Your task to perform on an android device: Empty the shopping cart on costco. Image 0: 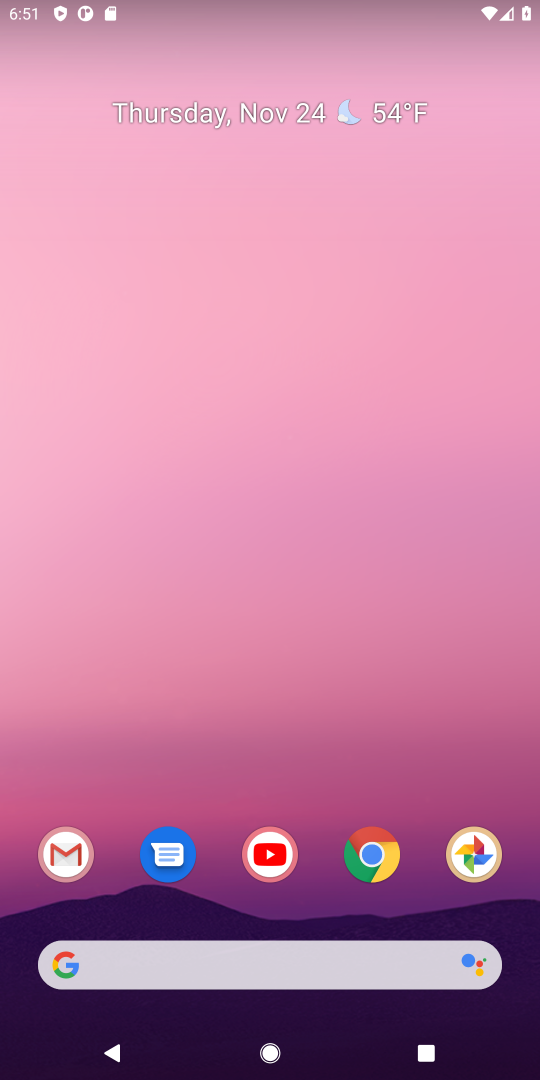
Step 0: click (365, 852)
Your task to perform on an android device: Empty the shopping cart on costco. Image 1: 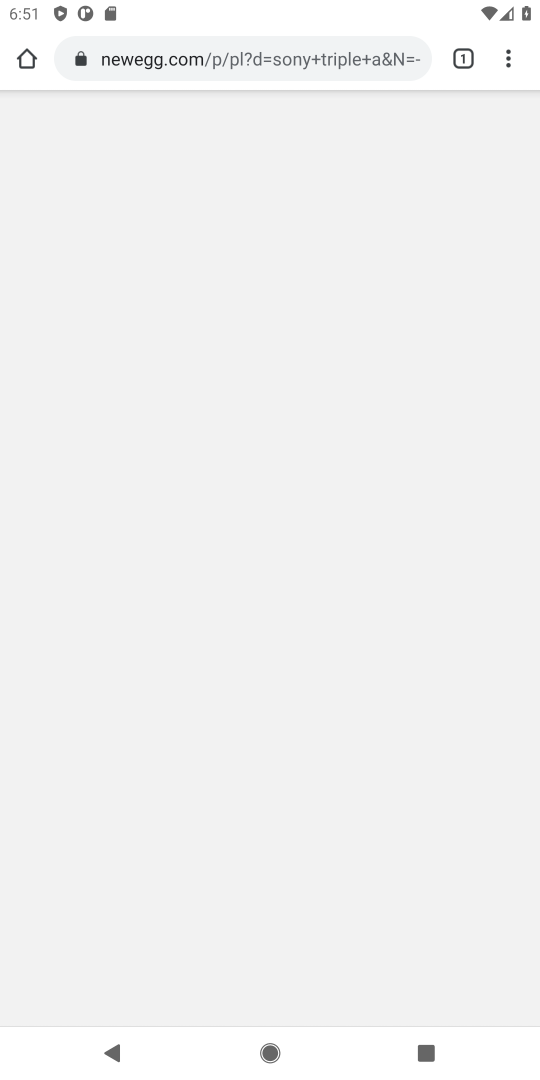
Step 1: click (191, 55)
Your task to perform on an android device: Empty the shopping cart on costco. Image 2: 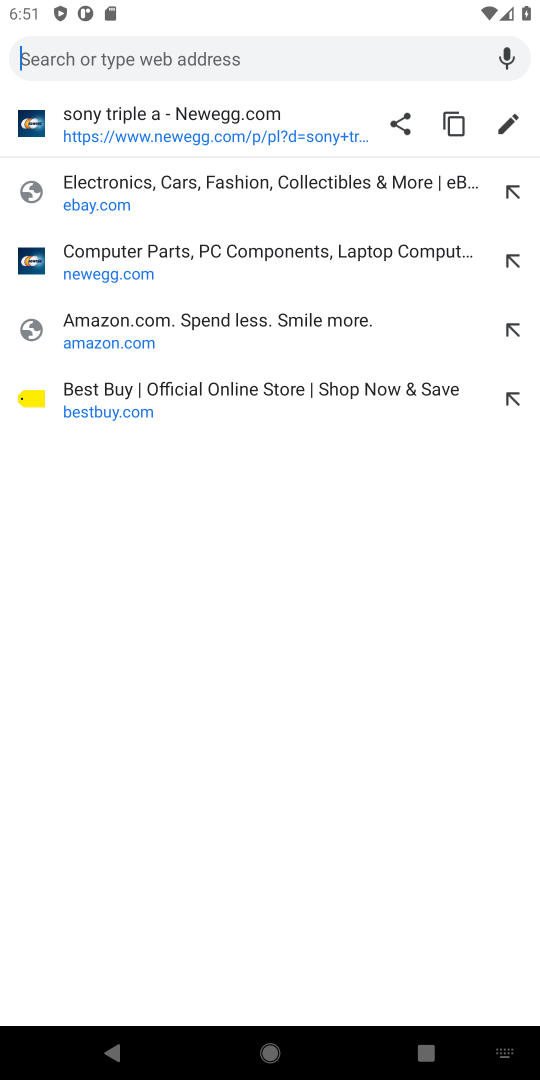
Step 2: type "costco.com"
Your task to perform on an android device: Empty the shopping cart on costco. Image 3: 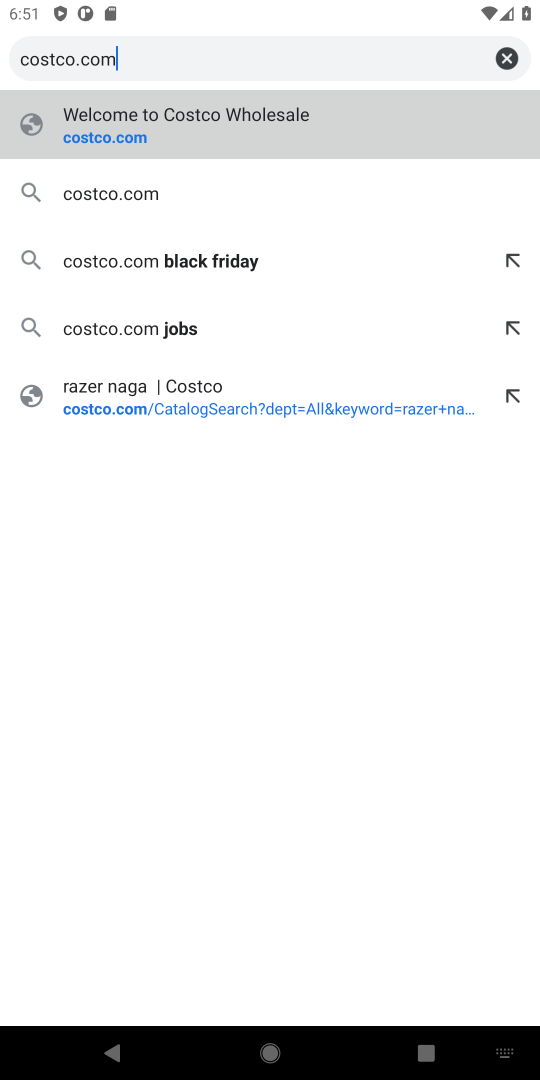
Step 3: click (108, 143)
Your task to perform on an android device: Empty the shopping cart on costco. Image 4: 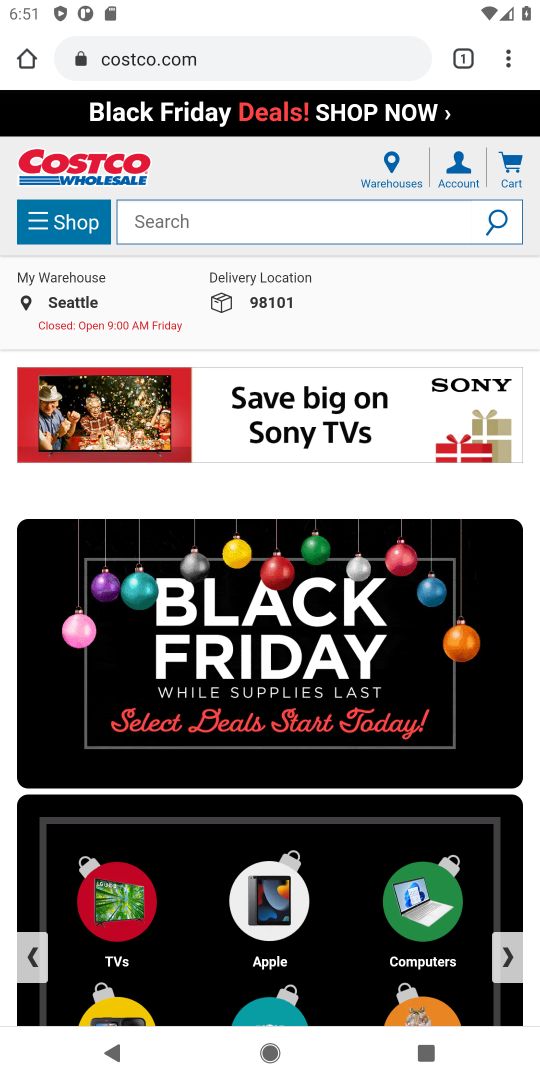
Step 4: click (516, 175)
Your task to perform on an android device: Empty the shopping cart on costco. Image 5: 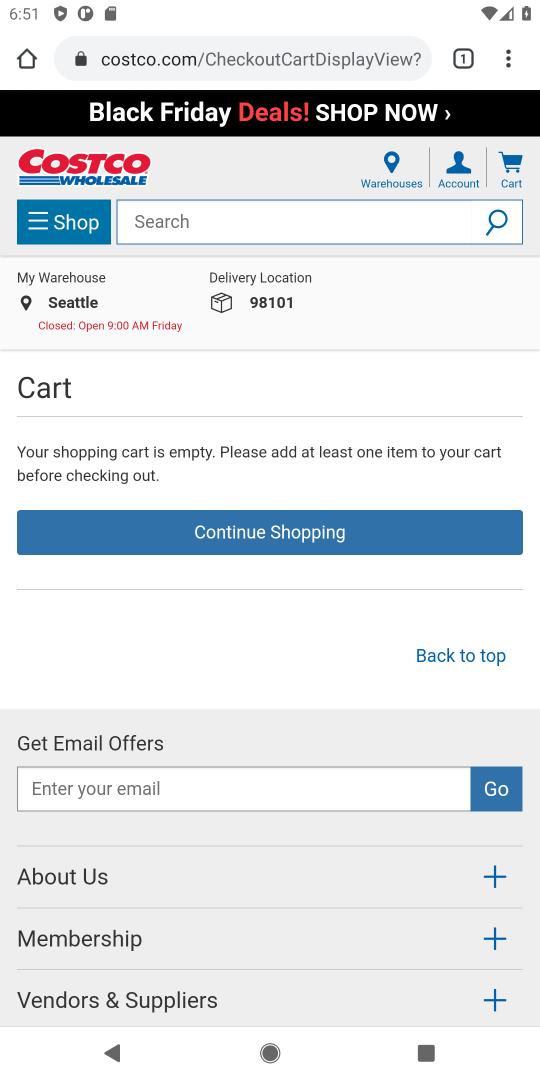
Step 5: task complete